Your task to perform on an android device: refresh tabs in the chrome app Image 0: 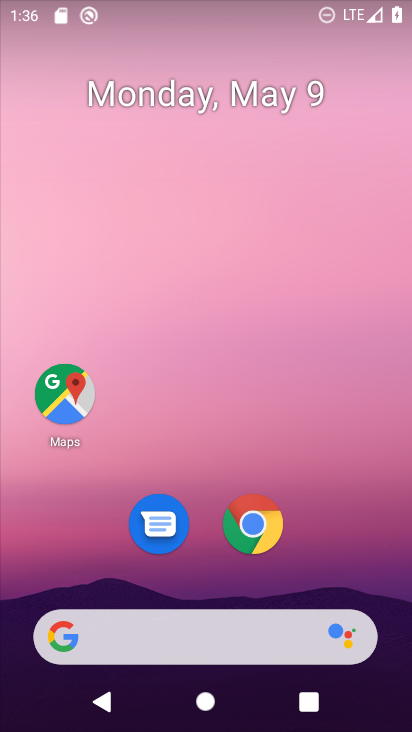
Step 0: click (263, 515)
Your task to perform on an android device: refresh tabs in the chrome app Image 1: 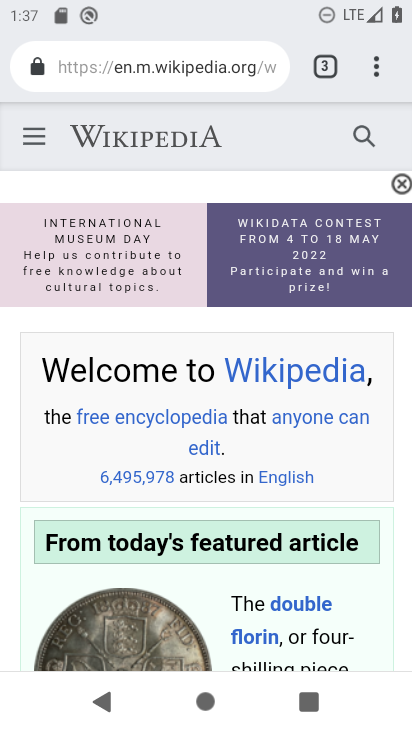
Step 1: click (376, 62)
Your task to perform on an android device: refresh tabs in the chrome app Image 2: 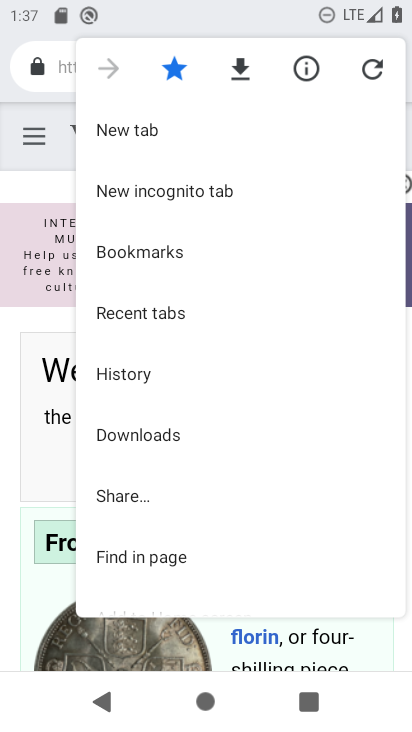
Step 2: click (371, 67)
Your task to perform on an android device: refresh tabs in the chrome app Image 3: 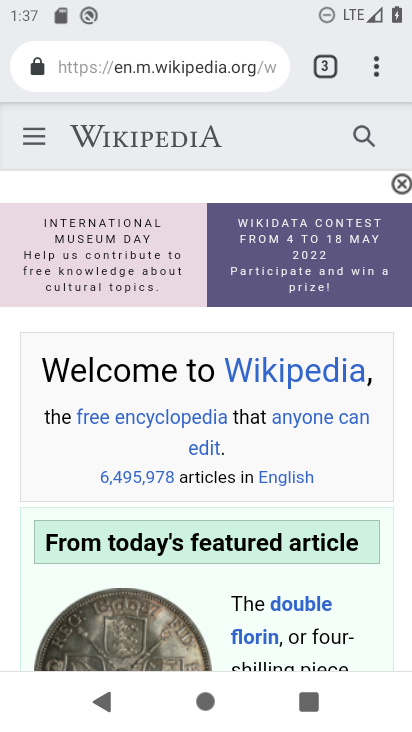
Step 3: task complete